Your task to perform on an android device: Open calendar and show me the first week of next month Image 0: 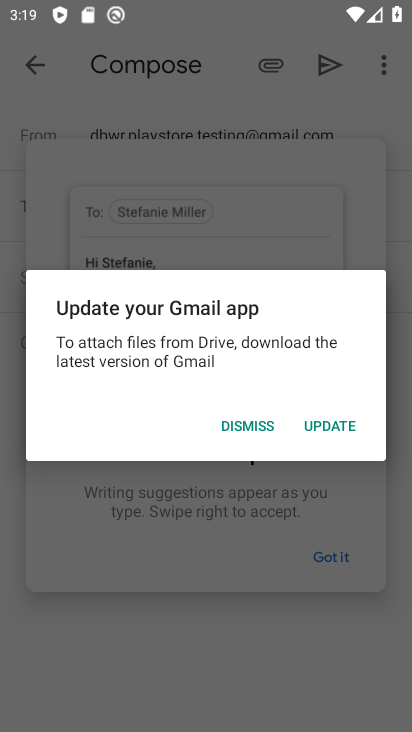
Step 0: press home button
Your task to perform on an android device: Open calendar and show me the first week of next month Image 1: 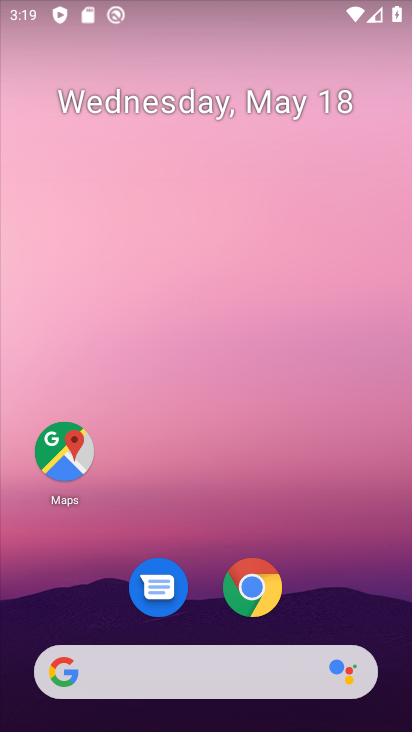
Step 1: drag from (345, 576) to (373, 123)
Your task to perform on an android device: Open calendar and show me the first week of next month Image 2: 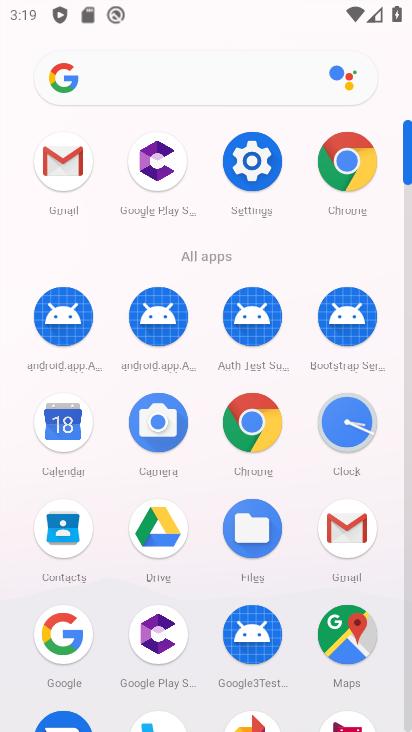
Step 2: click (69, 426)
Your task to perform on an android device: Open calendar and show me the first week of next month Image 3: 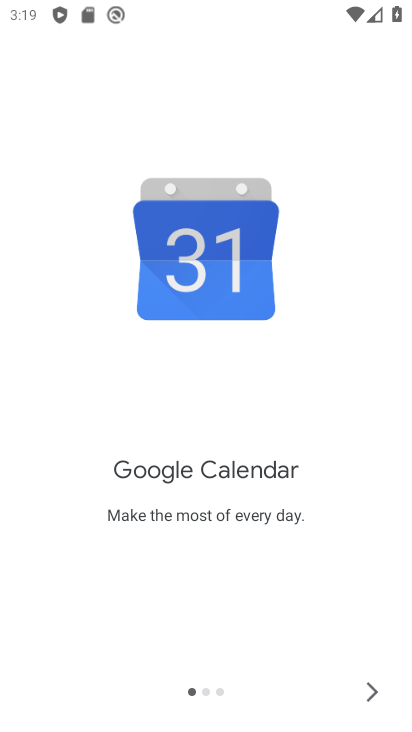
Step 3: click (373, 690)
Your task to perform on an android device: Open calendar and show me the first week of next month Image 4: 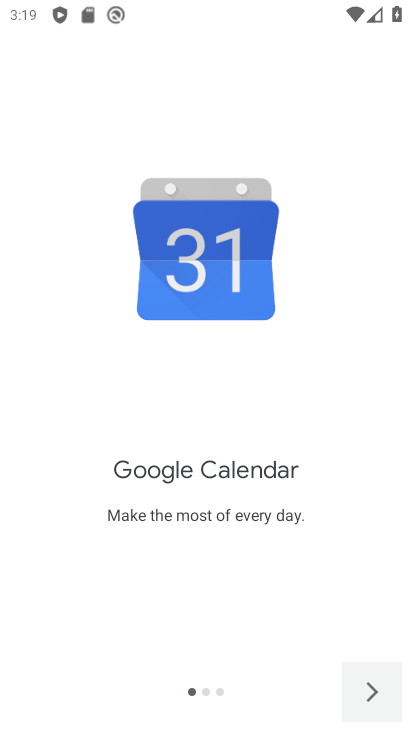
Step 4: click (372, 689)
Your task to perform on an android device: Open calendar and show me the first week of next month Image 5: 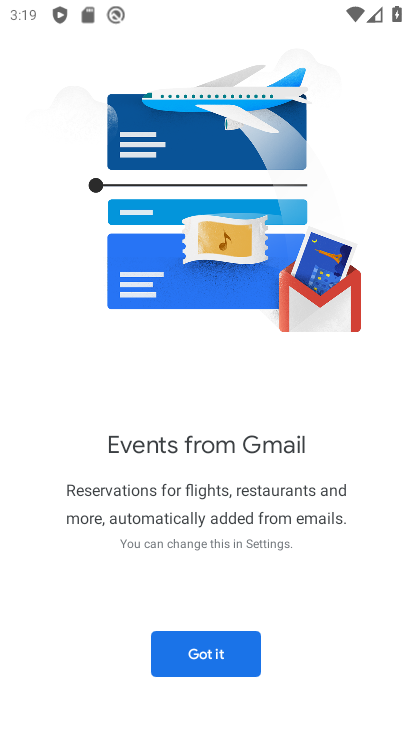
Step 5: click (191, 651)
Your task to perform on an android device: Open calendar and show me the first week of next month Image 6: 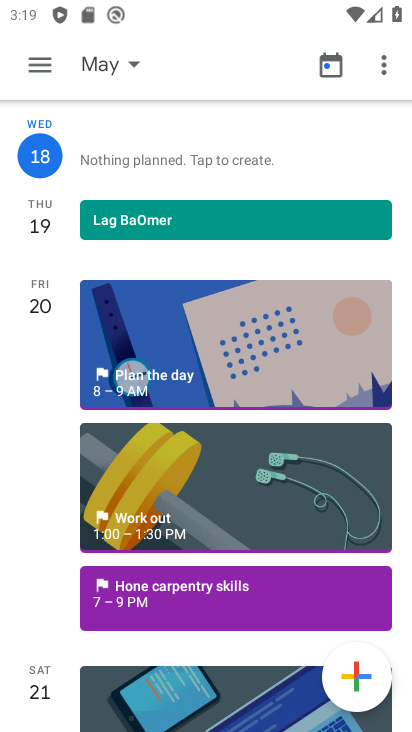
Step 6: click (107, 62)
Your task to perform on an android device: Open calendar and show me the first week of next month Image 7: 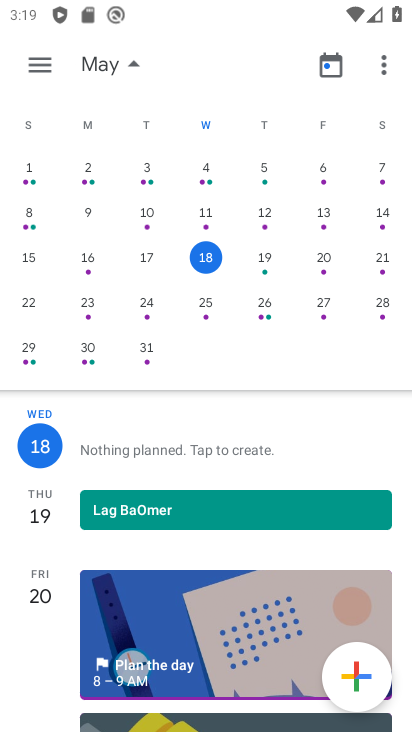
Step 7: click (82, 308)
Your task to perform on an android device: Open calendar and show me the first week of next month Image 8: 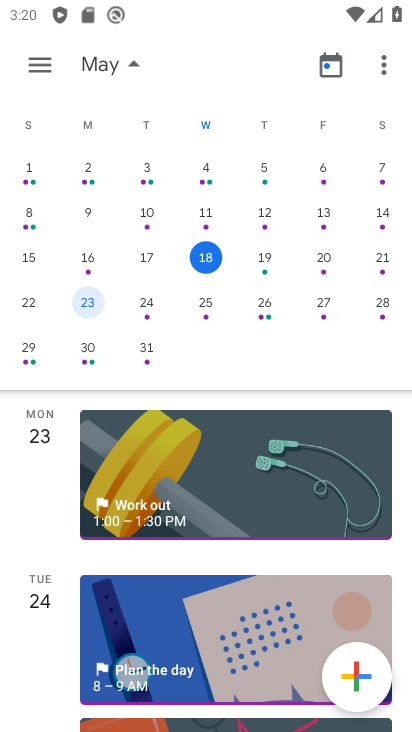
Step 8: drag from (169, 468) to (158, 15)
Your task to perform on an android device: Open calendar and show me the first week of next month Image 9: 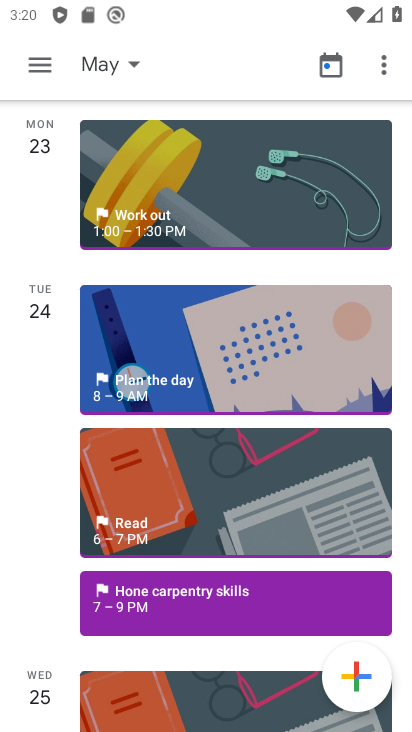
Step 9: click (33, 76)
Your task to perform on an android device: Open calendar and show me the first week of next month Image 10: 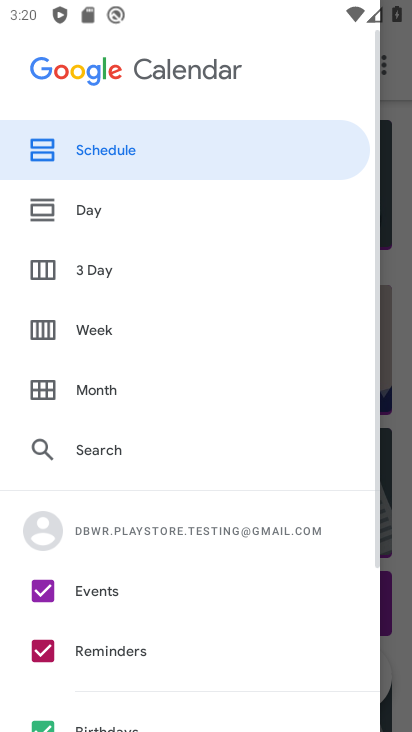
Step 10: click (101, 340)
Your task to perform on an android device: Open calendar and show me the first week of next month Image 11: 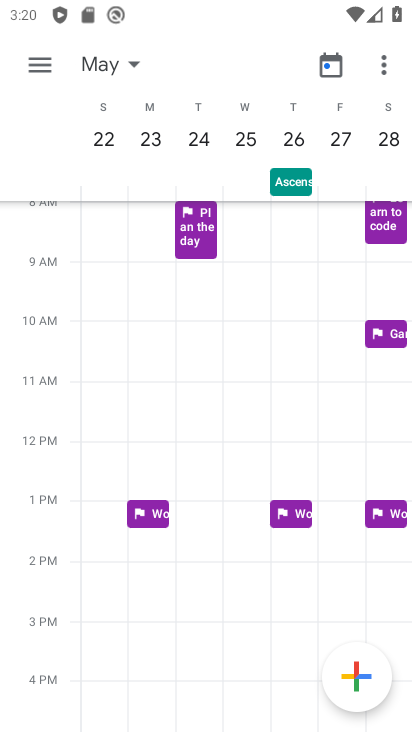
Step 11: task complete